Your task to perform on an android device: turn on the 12-hour format for clock Image 0: 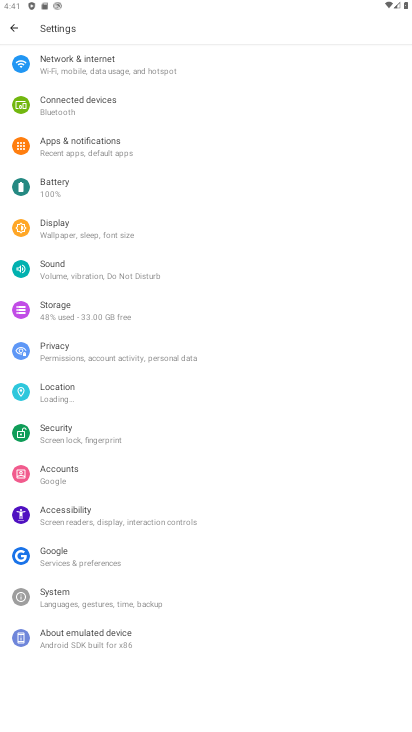
Step 0: press home button
Your task to perform on an android device: turn on the 12-hour format for clock Image 1: 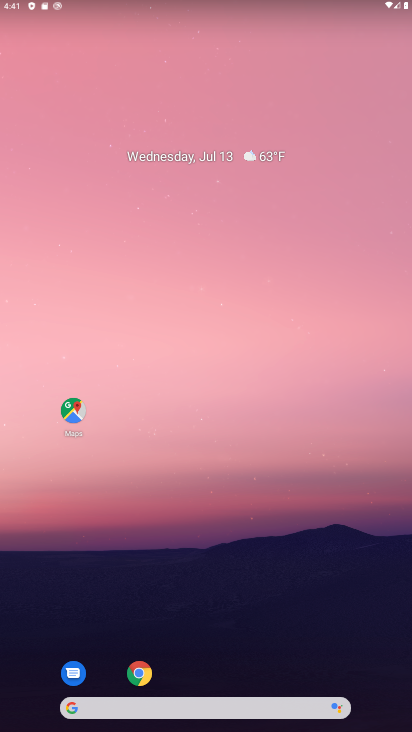
Step 1: drag from (210, 673) to (312, 182)
Your task to perform on an android device: turn on the 12-hour format for clock Image 2: 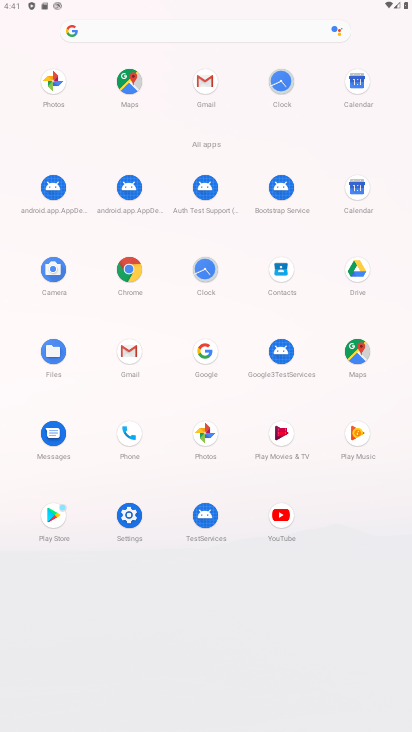
Step 2: click (219, 278)
Your task to perform on an android device: turn on the 12-hour format for clock Image 3: 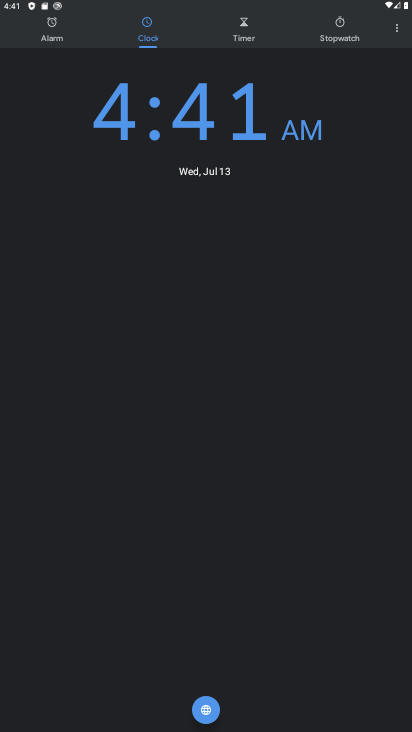
Step 3: click (394, 24)
Your task to perform on an android device: turn on the 12-hour format for clock Image 4: 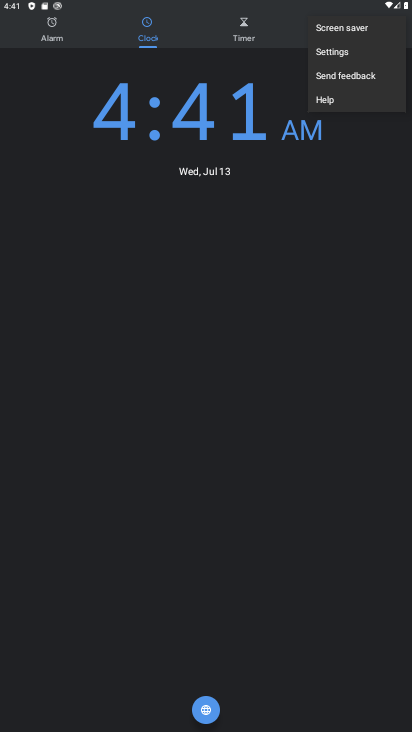
Step 4: click (351, 53)
Your task to perform on an android device: turn on the 12-hour format for clock Image 5: 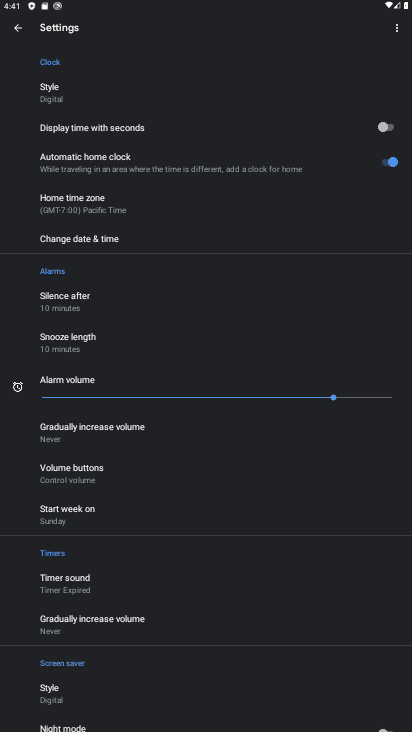
Step 5: click (135, 240)
Your task to perform on an android device: turn on the 12-hour format for clock Image 6: 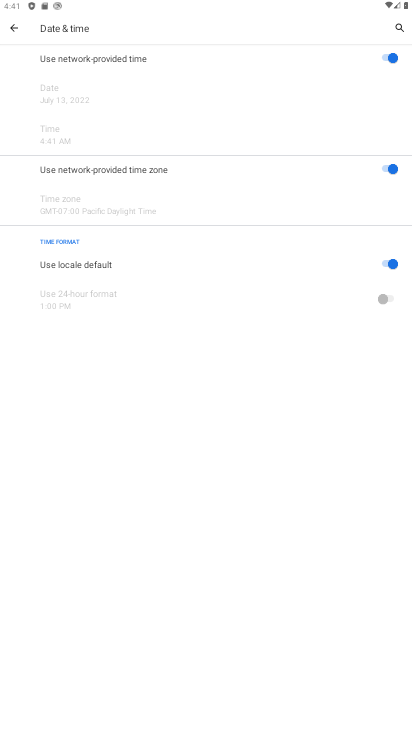
Step 6: task complete